Your task to perform on an android device: Go to privacy settings Image 0: 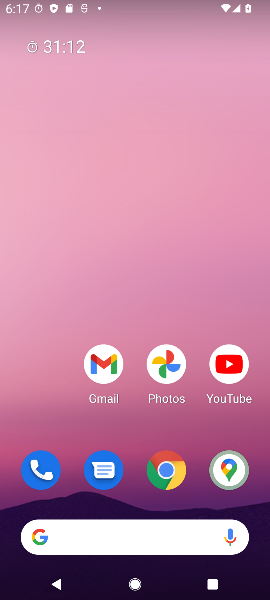
Step 0: drag from (192, 496) to (189, 31)
Your task to perform on an android device: Go to privacy settings Image 1: 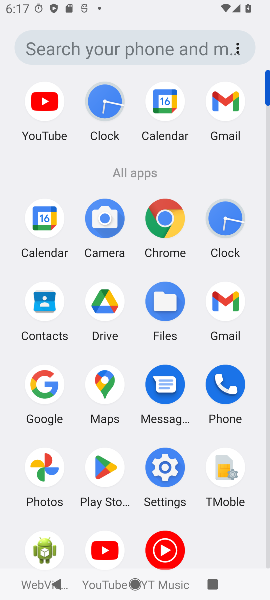
Step 1: click (164, 458)
Your task to perform on an android device: Go to privacy settings Image 2: 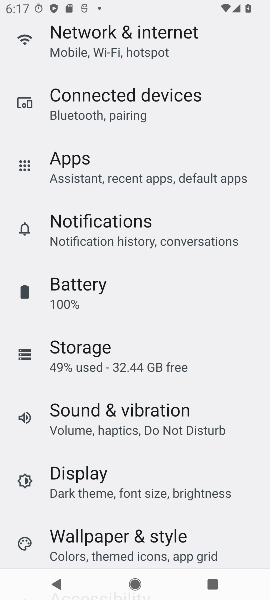
Step 2: drag from (121, 326) to (155, 105)
Your task to perform on an android device: Go to privacy settings Image 3: 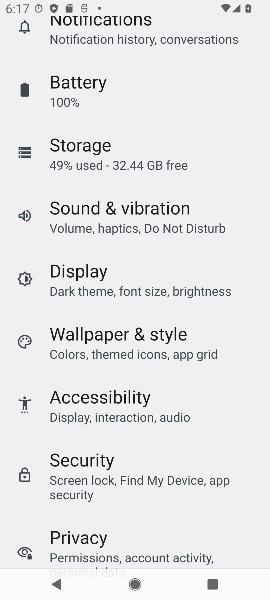
Step 3: click (72, 533)
Your task to perform on an android device: Go to privacy settings Image 4: 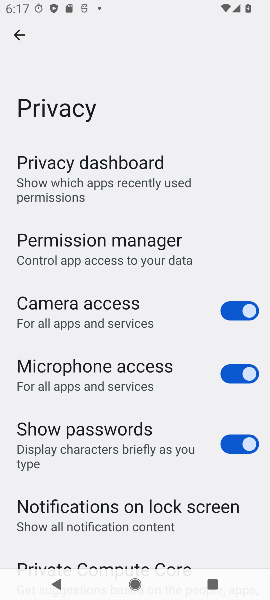
Step 4: task complete